Your task to perform on an android device: Open calendar and show me the second week of next month Image 0: 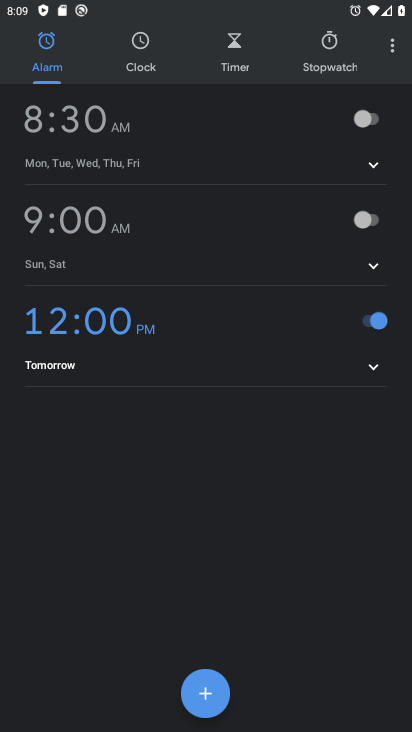
Step 0: press home button
Your task to perform on an android device: Open calendar and show me the second week of next month Image 1: 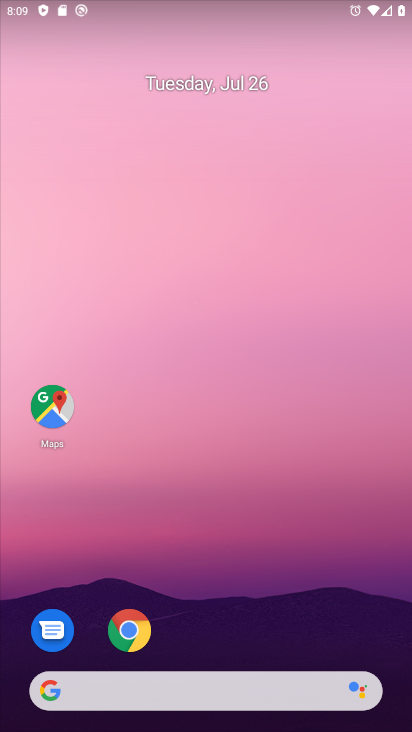
Step 1: drag from (161, 695) to (263, 101)
Your task to perform on an android device: Open calendar and show me the second week of next month Image 2: 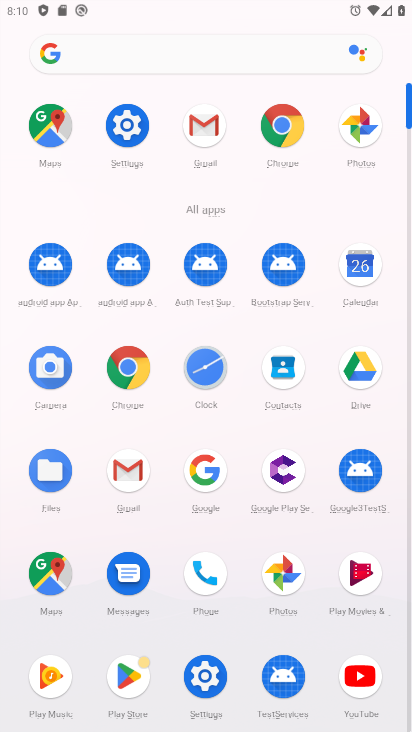
Step 2: click (357, 265)
Your task to perform on an android device: Open calendar and show me the second week of next month Image 3: 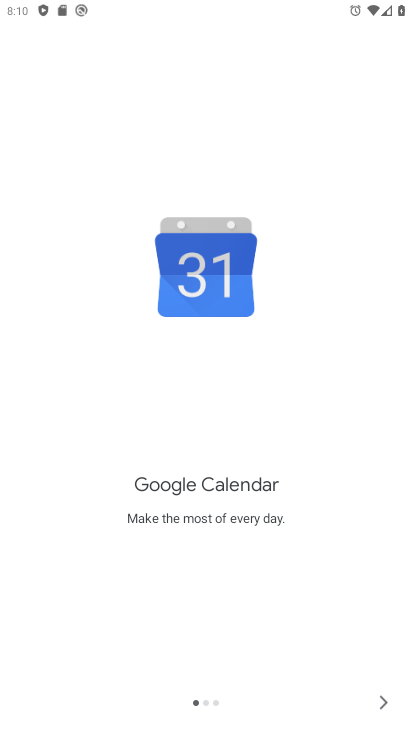
Step 3: click (381, 701)
Your task to perform on an android device: Open calendar and show me the second week of next month Image 4: 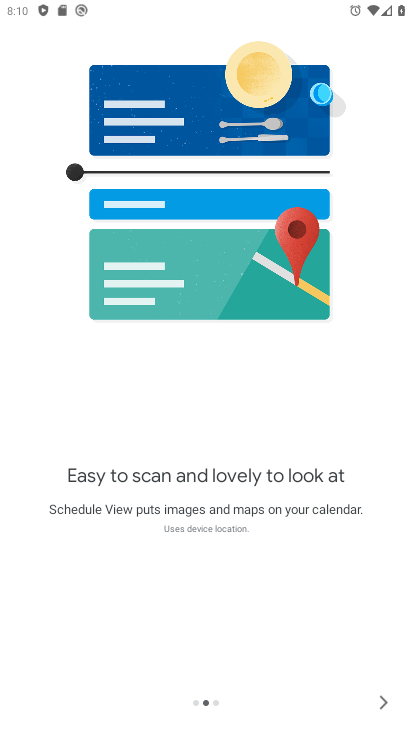
Step 4: click (384, 699)
Your task to perform on an android device: Open calendar and show me the second week of next month Image 5: 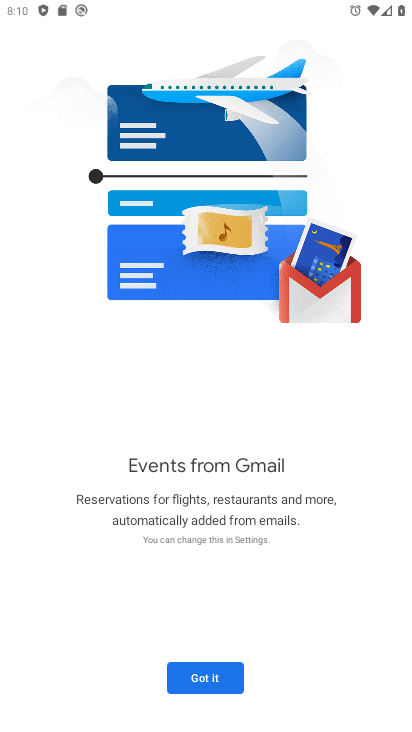
Step 5: click (206, 681)
Your task to perform on an android device: Open calendar and show me the second week of next month Image 6: 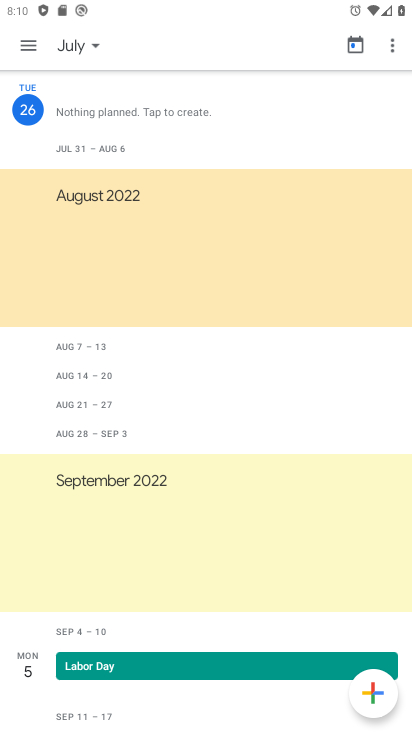
Step 6: click (95, 43)
Your task to perform on an android device: Open calendar and show me the second week of next month Image 7: 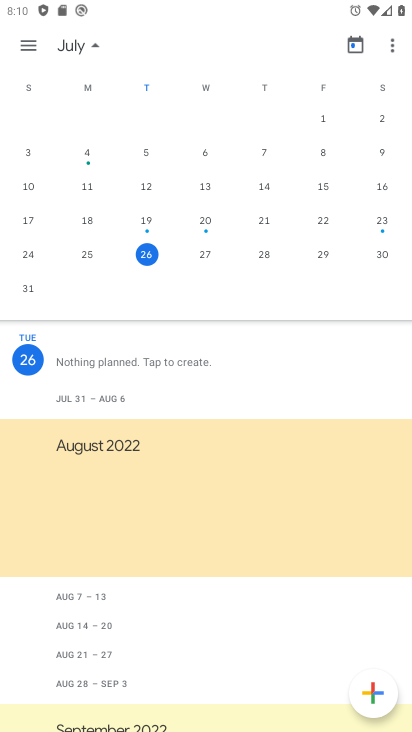
Step 7: drag from (350, 244) to (2, 229)
Your task to perform on an android device: Open calendar and show me the second week of next month Image 8: 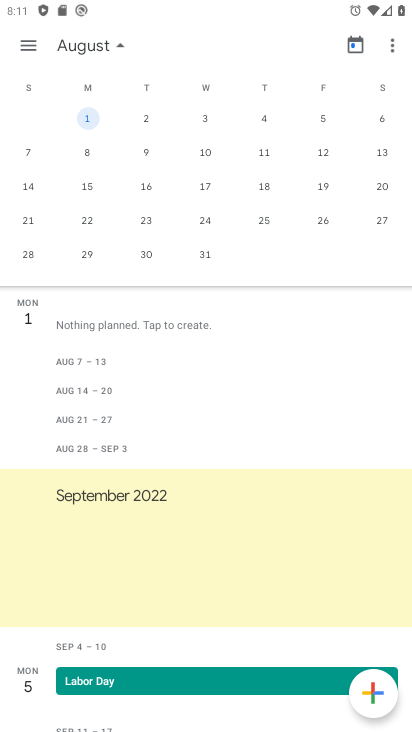
Step 8: click (92, 151)
Your task to perform on an android device: Open calendar and show me the second week of next month Image 9: 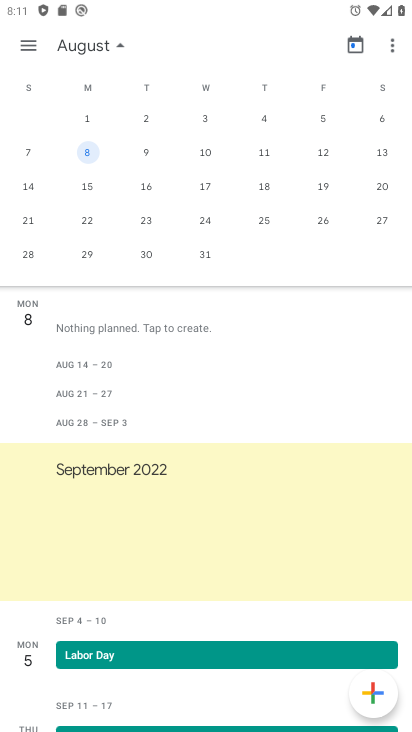
Step 9: click (30, 47)
Your task to perform on an android device: Open calendar and show me the second week of next month Image 10: 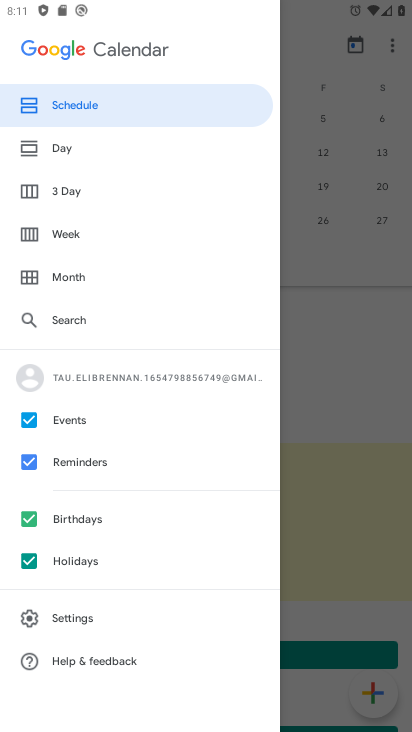
Step 10: click (76, 232)
Your task to perform on an android device: Open calendar and show me the second week of next month Image 11: 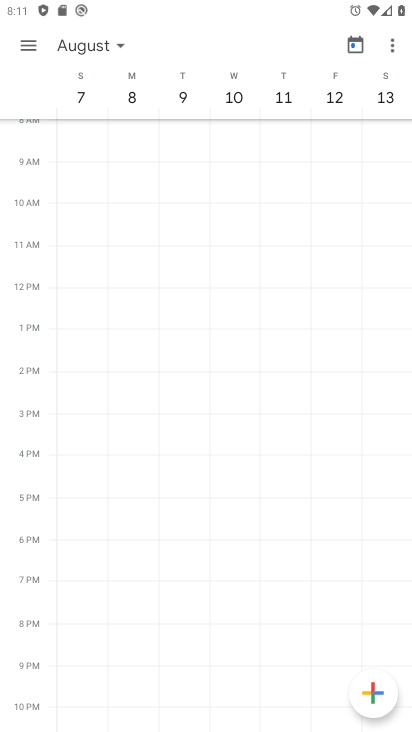
Step 11: task complete